Your task to perform on an android device: Find coffee shops on Maps Image 0: 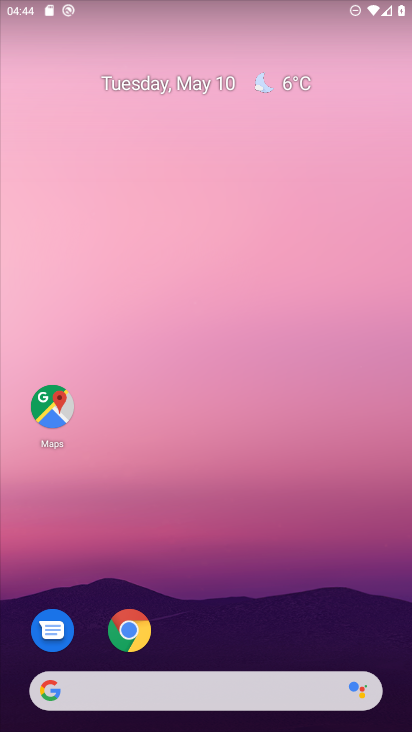
Step 0: click (59, 407)
Your task to perform on an android device: Find coffee shops on Maps Image 1: 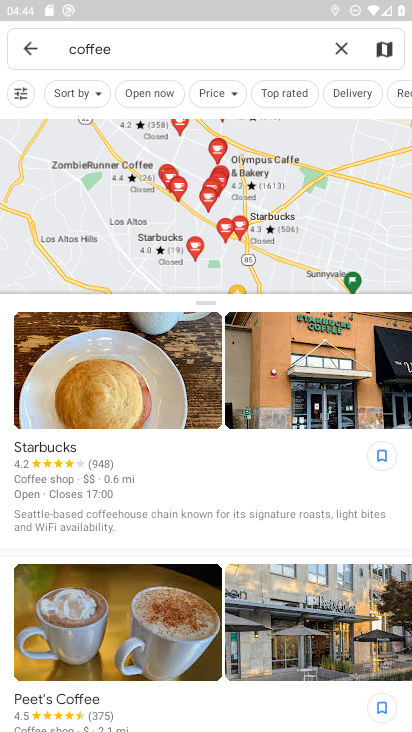
Step 1: task complete